Your task to perform on an android device: turn off sleep mode Image 0: 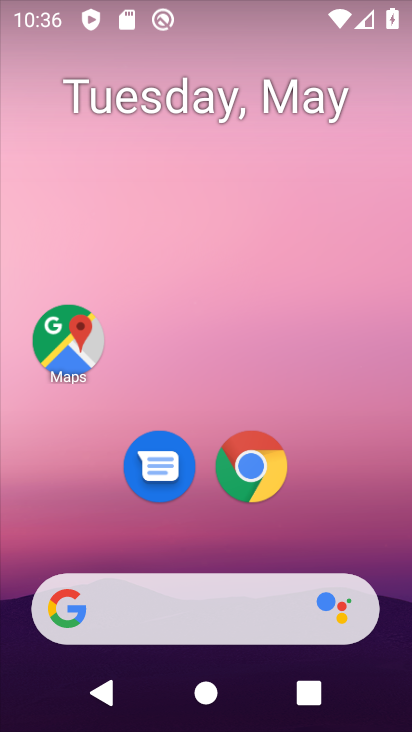
Step 0: drag from (396, 558) to (243, 22)
Your task to perform on an android device: turn off sleep mode Image 1: 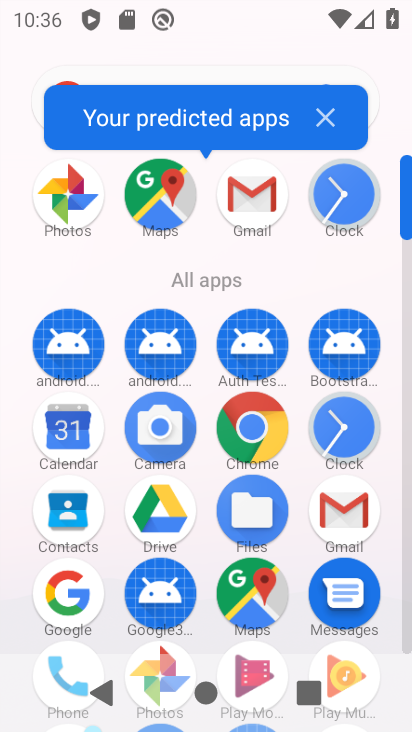
Step 1: click (408, 643)
Your task to perform on an android device: turn off sleep mode Image 2: 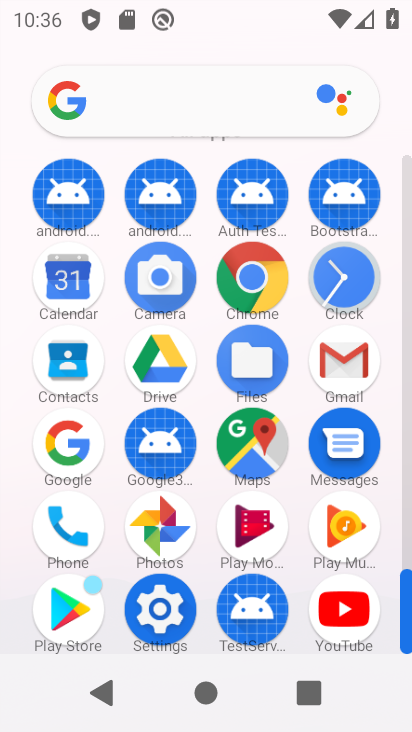
Step 2: click (181, 607)
Your task to perform on an android device: turn off sleep mode Image 3: 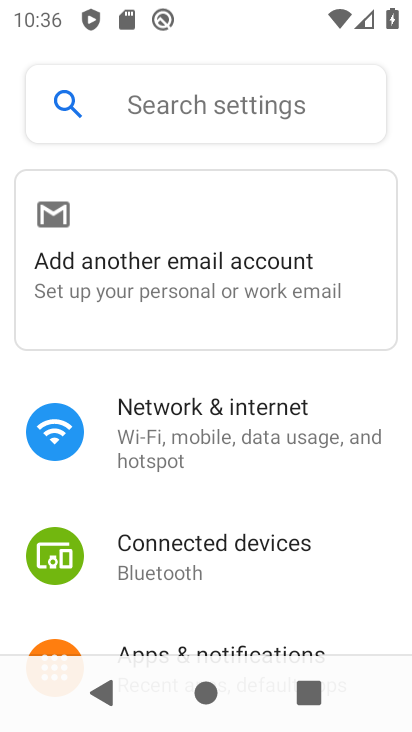
Step 3: drag from (277, 584) to (188, 213)
Your task to perform on an android device: turn off sleep mode Image 4: 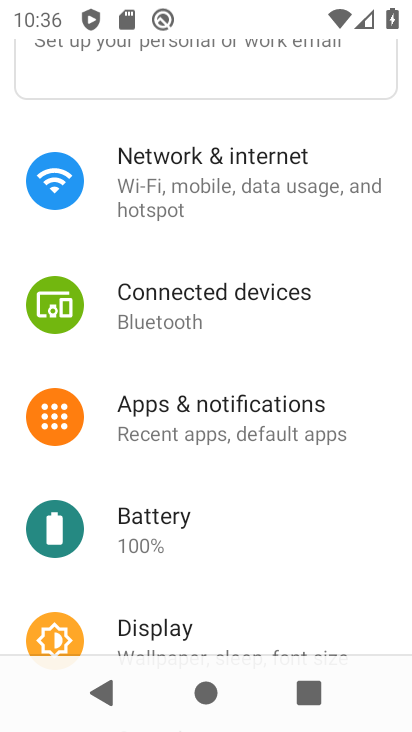
Step 4: click (209, 622)
Your task to perform on an android device: turn off sleep mode Image 5: 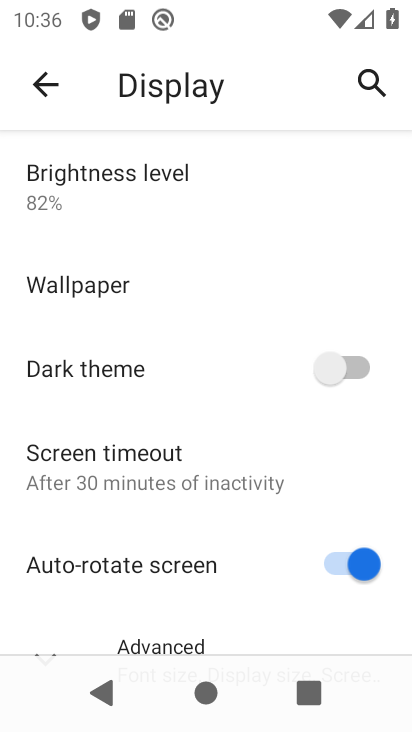
Step 5: drag from (247, 630) to (203, 322)
Your task to perform on an android device: turn off sleep mode Image 6: 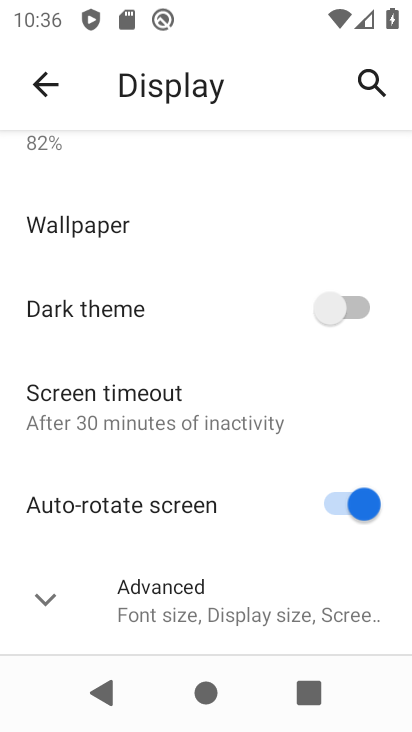
Step 6: click (261, 579)
Your task to perform on an android device: turn off sleep mode Image 7: 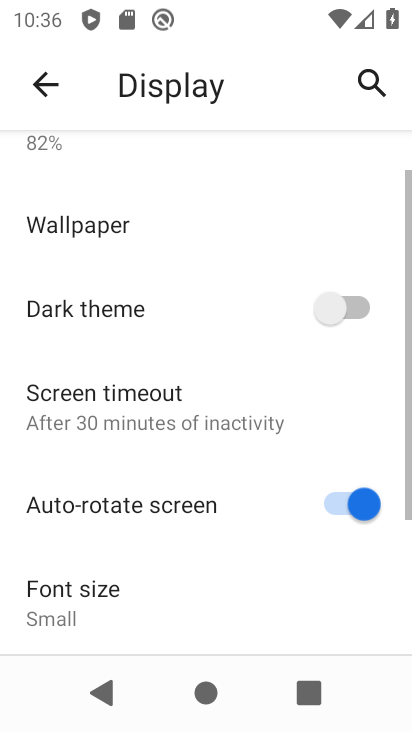
Step 7: task complete